Your task to perform on an android device: Open Android settings Image 0: 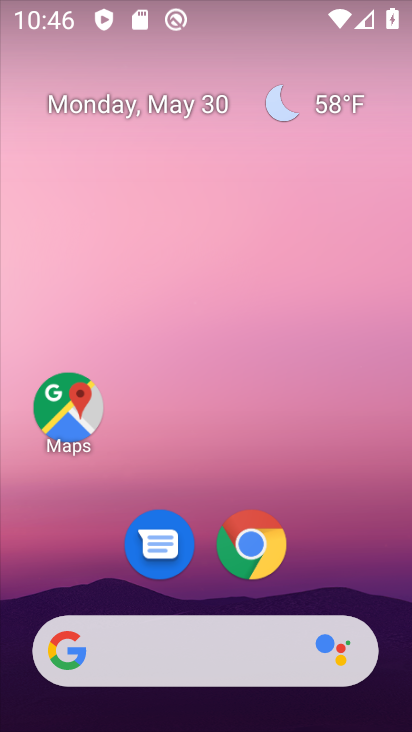
Step 0: task complete